Your task to perform on an android device: toggle javascript in the chrome app Image 0: 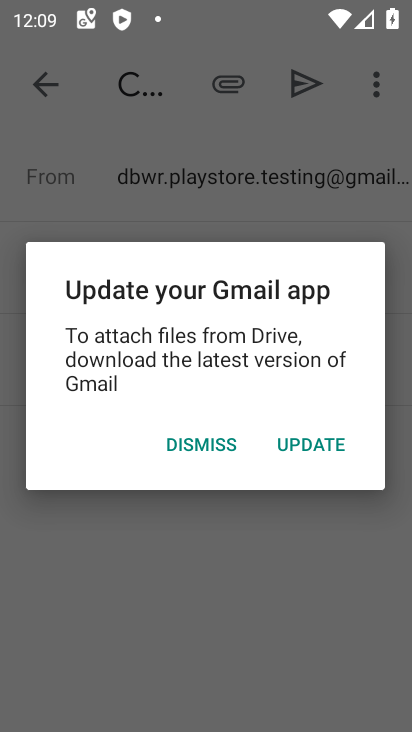
Step 0: press home button
Your task to perform on an android device: toggle javascript in the chrome app Image 1: 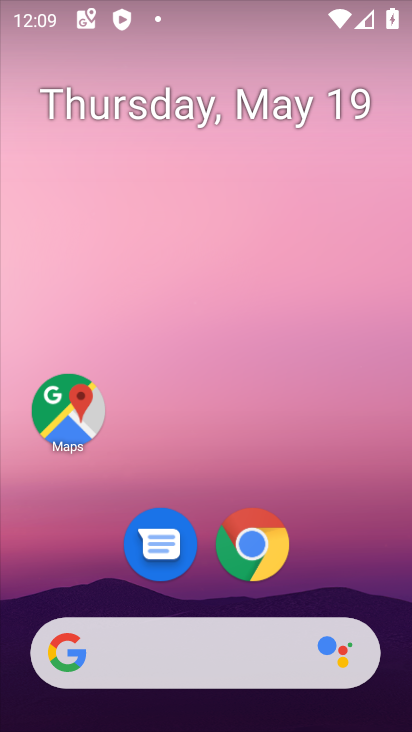
Step 1: drag from (255, 713) to (229, 156)
Your task to perform on an android device: toggle javascript in the chrome app Image 2: 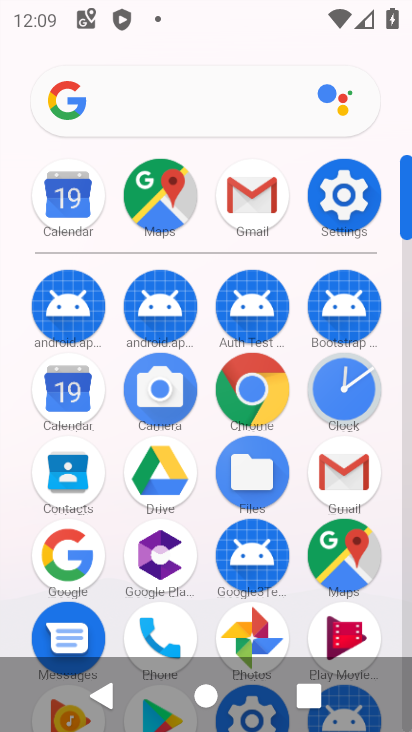
Step 2: click (250, 384)
Your task to perform on an android device: toggle javascript in the chrome app Image 3: 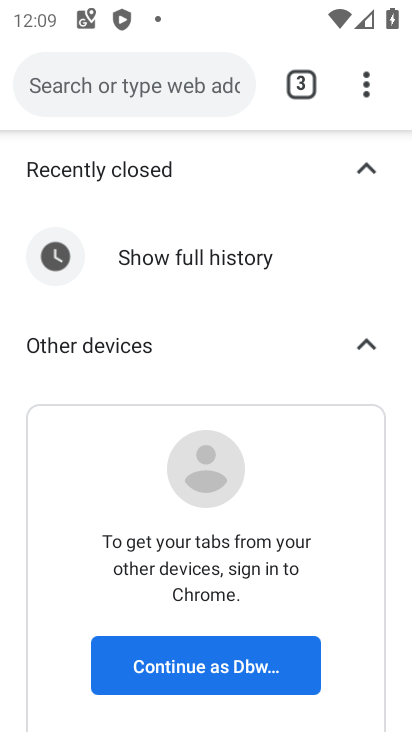
Step 3: click (367, 98)
Your task to perform on an android device: toggle javascript in the chrome app Image 4: 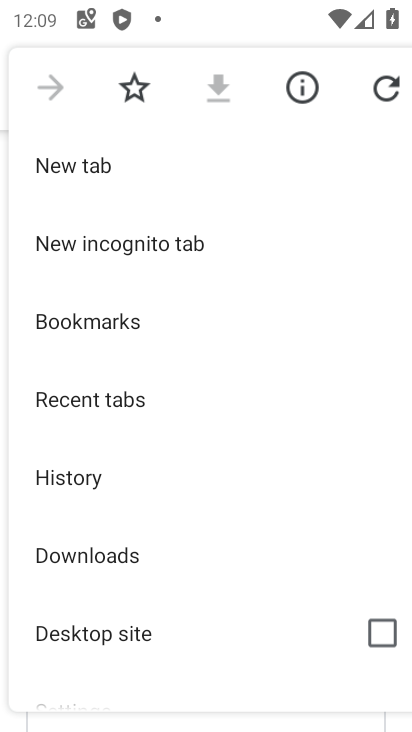
Step 4: drag from (228, 655) to (207, 294)
Your task to perform on an android device: toggle javascript in the chrome app Image 5: 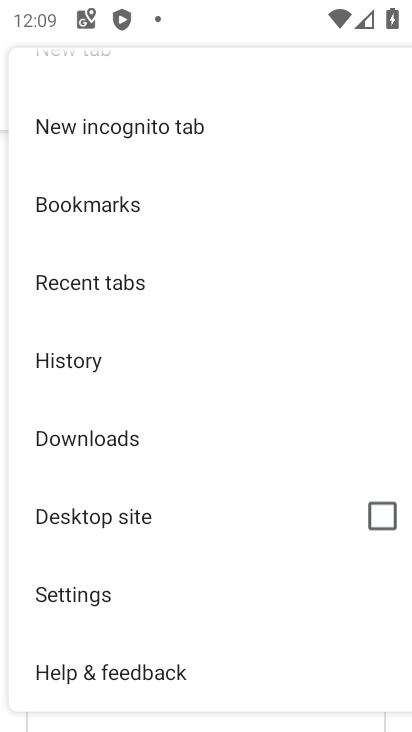
Step 5: click (112, 604)
Your task to perform on an android device: toggle javascript in the chrome app Image 6: 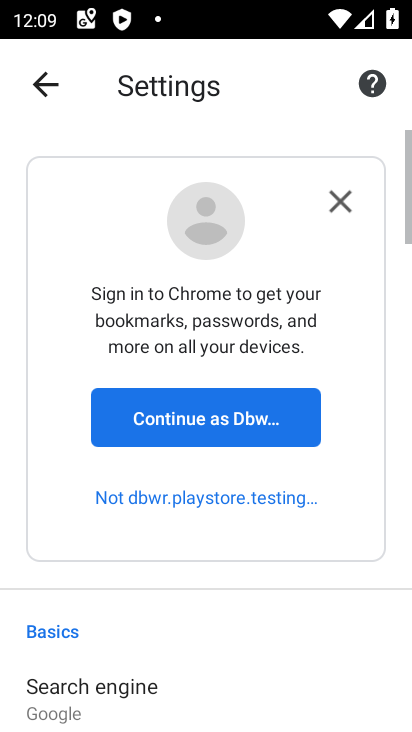
Step 6: drag from (246, 648) to (204, 142)
Your task to perform on an android device: toggle javascript in the chrome app Image 7: 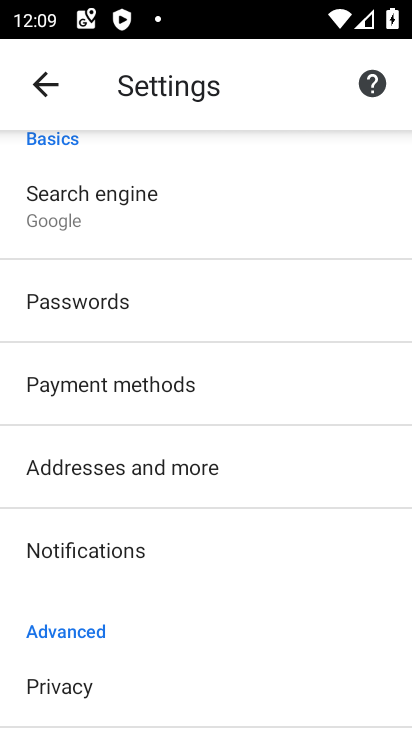
Step 7: drag from (289, 612) to (270, 213)
Your task to perform on an android device: toggle javascript in the chrome app Image 8: 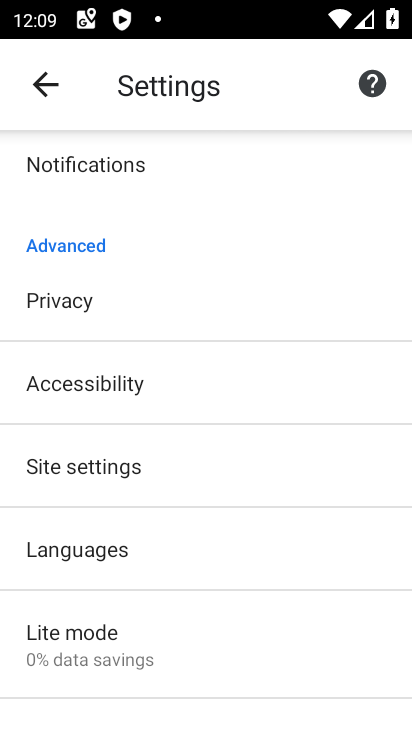
Step 8: click (125, 477)
Your task to perform on an android device: toggle javascript in the chrome app Image 9: 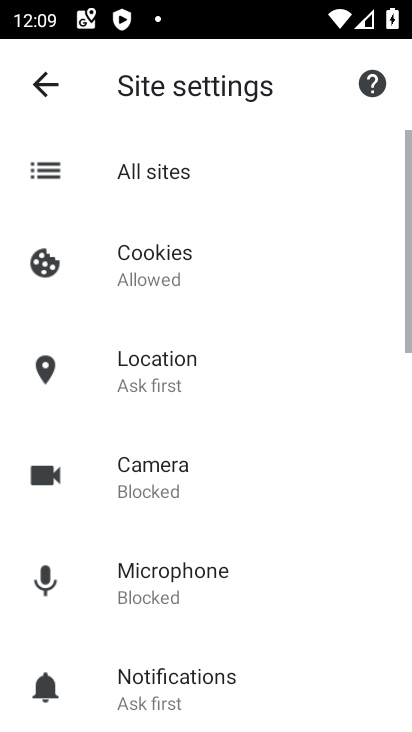
Step 9: drag from (360, 608) to (370, 32)
Your task to perform on an android device: toggle javascript in the chrome app Image 10: 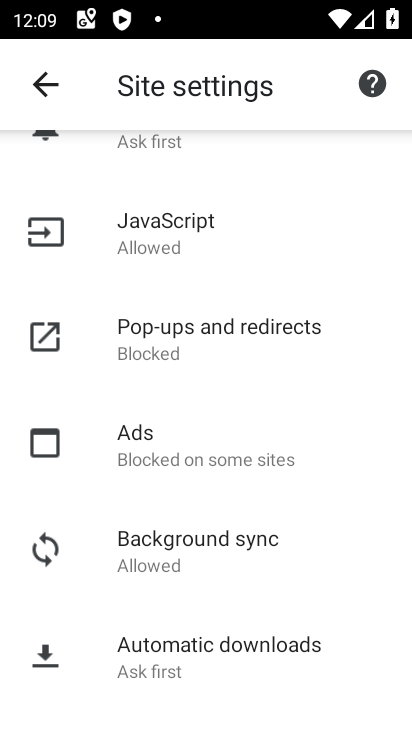
Step 10: drag from (271, 512) to (255, 155)
Your task to perform on an android device: toggle javascript in the chrome app Image 11: 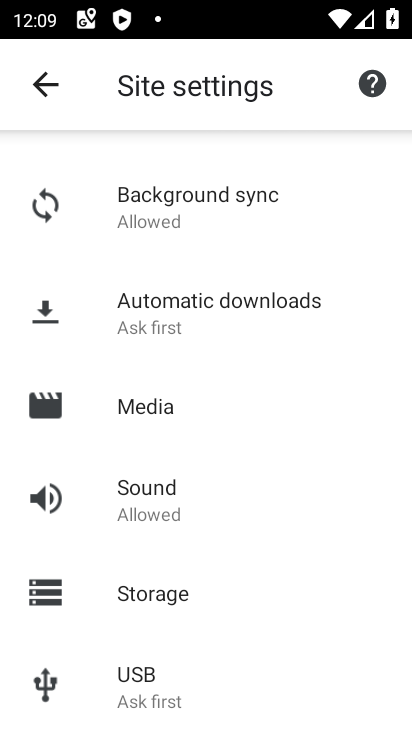
Step 11: drag from (309, 235) to (289, 533)
Your task to perform on an android device: toggle javascript in the chrome app Image 12: 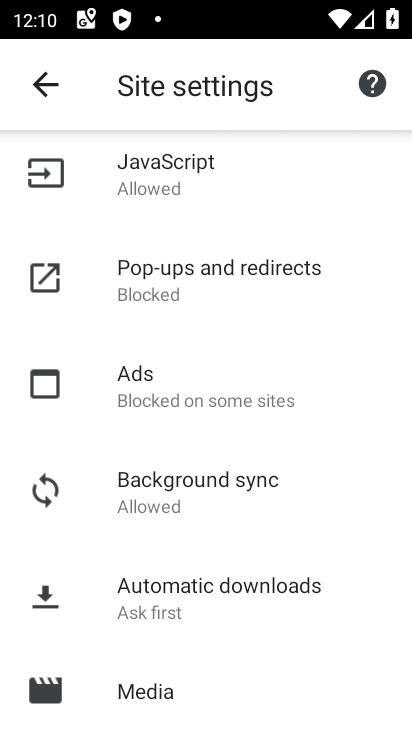
Step 12: click (147, 170)
Your task to perform on an android device: toggle javascript in the chrome app Image 13: 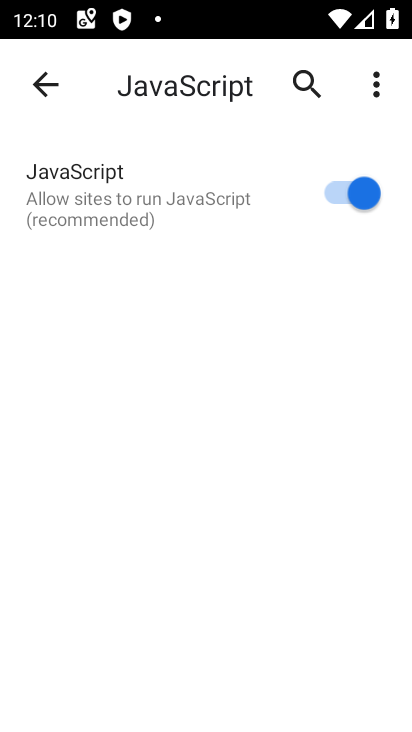
Step 13: click (358, 192)
Your task to perform on an android device: toggle javascript in the chrome app Image 14: 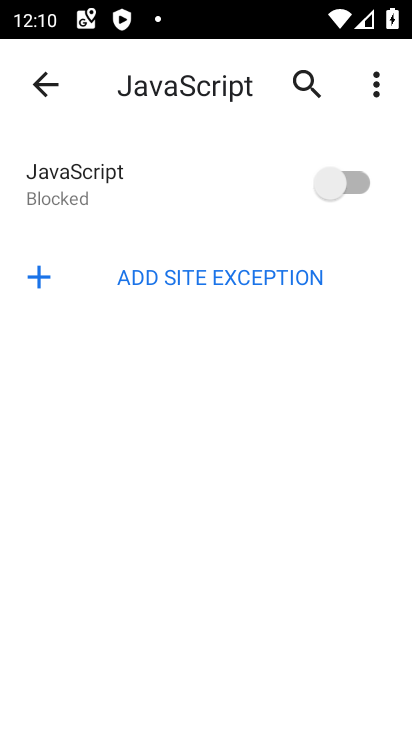
Step 14: task complete